Your task to perform on an android device: turn on translation in the chrome app Image 0: 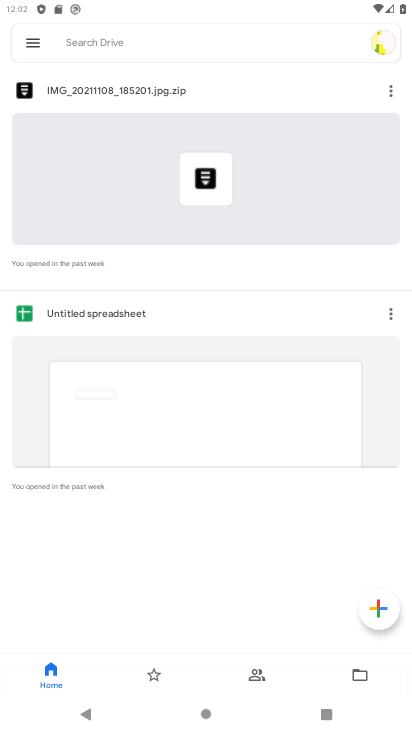
Step 0: press home button
Your task to perform on an android device: turn on translation in the chrome app Image 1: 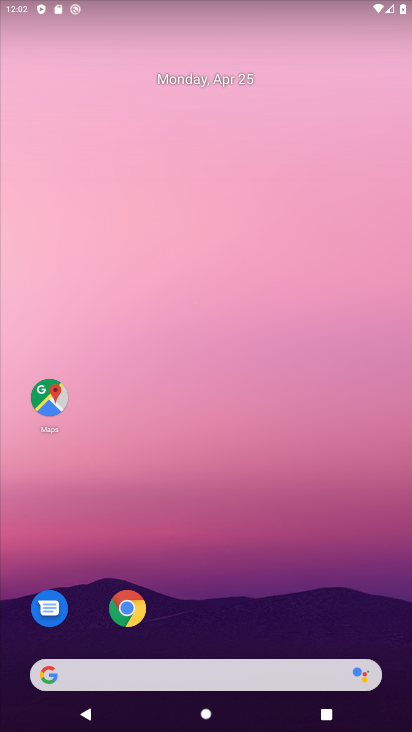
Step 1: click (125, 608)
Your task to perform on an android device: turn on translation in the chrome app Image 2: 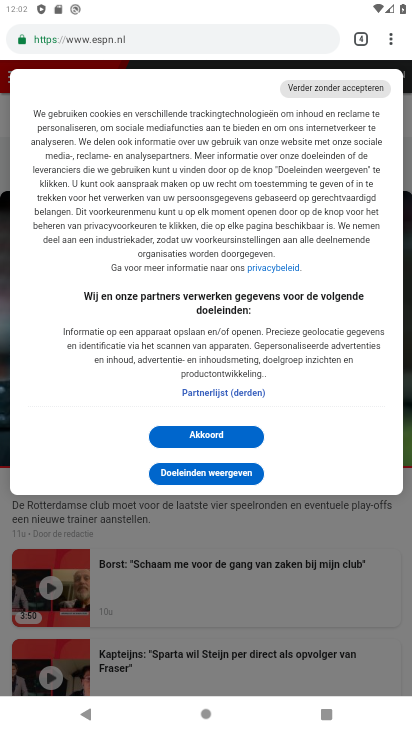
Step 2: click (389, 45)
Your task to perform on an android device: turn on translation in the chrome app Image 3: 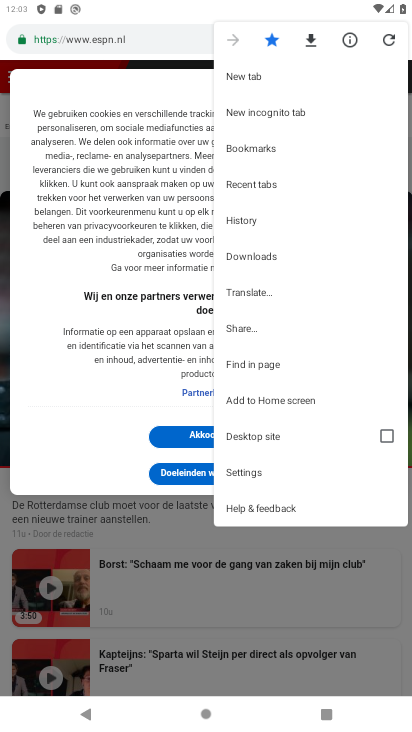
Step 3: click (245, 472)
Your task to perform on an android device: turn on translation in the chrome app Image 4: 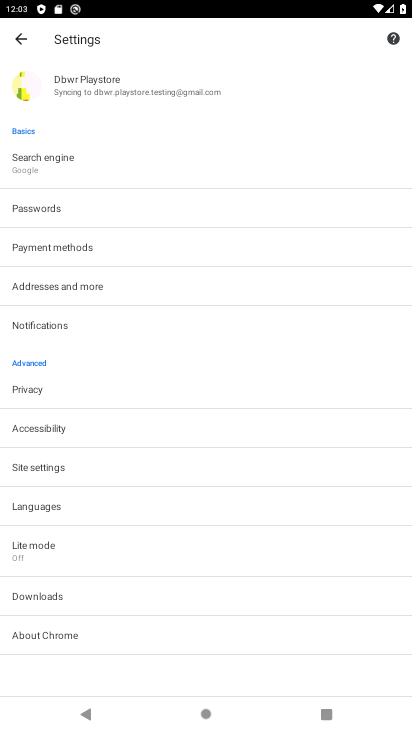
Step 4: click (40, 504)
Your task to perform on an android device: turn on translation in the chrome app Image 5: 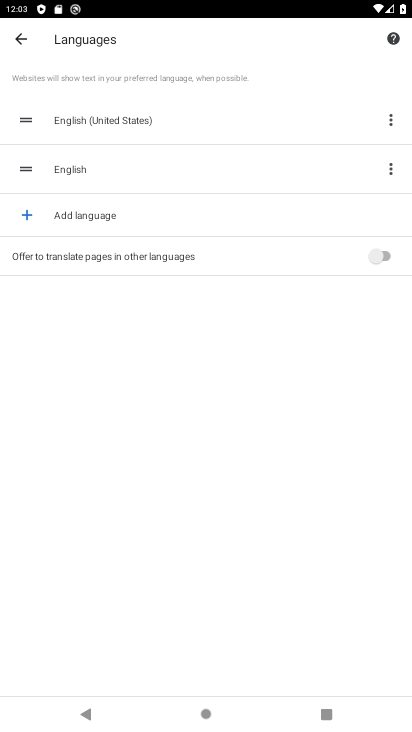
Step 5: click (387, 254)
Your task to perform on an android device: turn on translation in the chrome app Image 6: 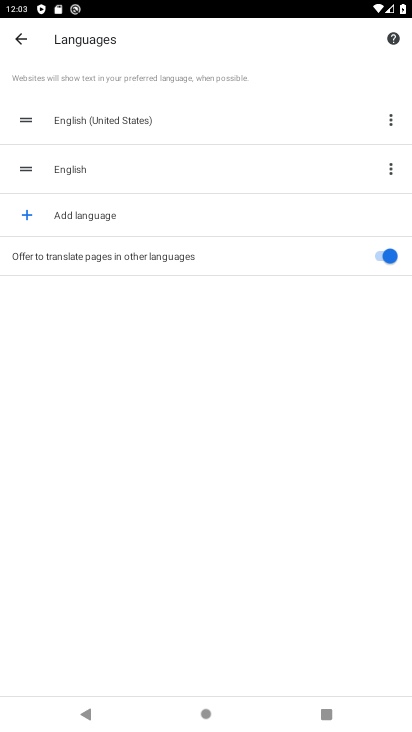
Step 6: task complete